Your task to perform on an android device: Empty the shopping cart on newegg.com. Image 0: 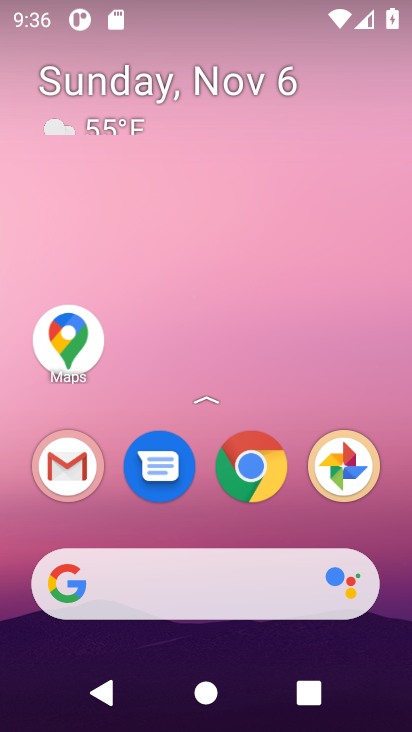
Step 0: click (263, 449)
Your task to perform on an android device: Empty the shopping cart on newegg.com. Image 1: 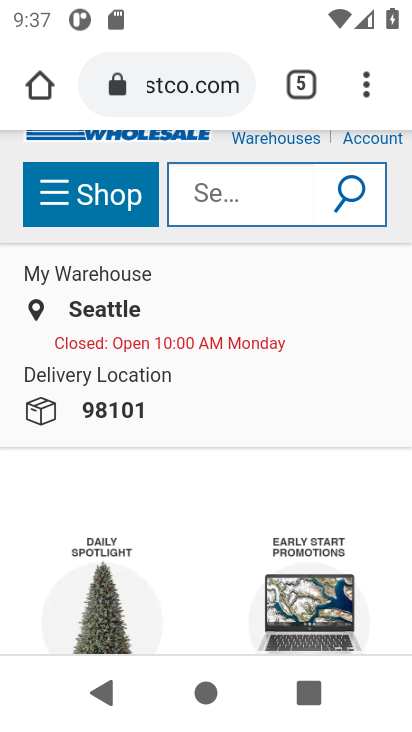
Step 1: click (294, 87)
Your task to perform on an android device: Empty the shopping cart on newegg.com. Image 2: 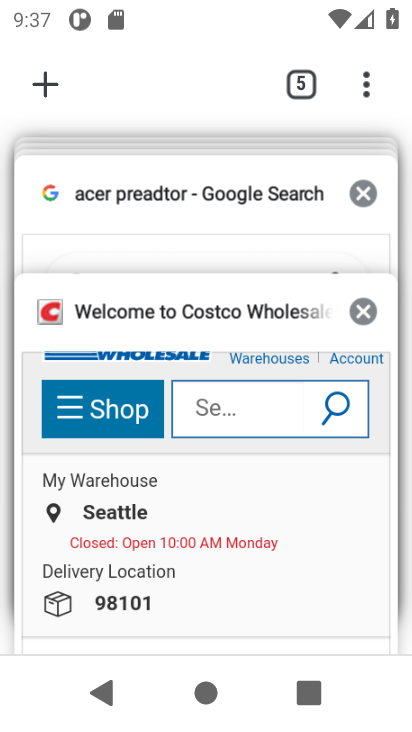
Step 2: click (51, 77)
Your task to perform on an android device: Empty the shopping cart on newegg.com. Image 3: 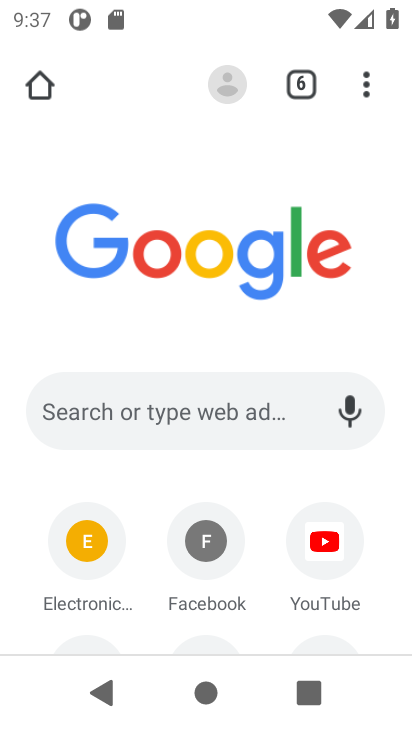
Step 3: click (158, 396)
Your task to perform on an android device: Empty the shopping cart on newegg.com. Image 4: 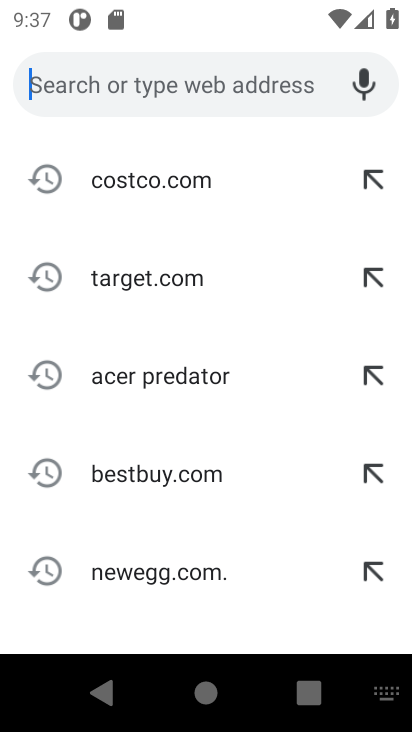
Step 4: click (222, 566)
Your task to perform on an android device: Empty the shopping cart on newegg.com. Image 5: 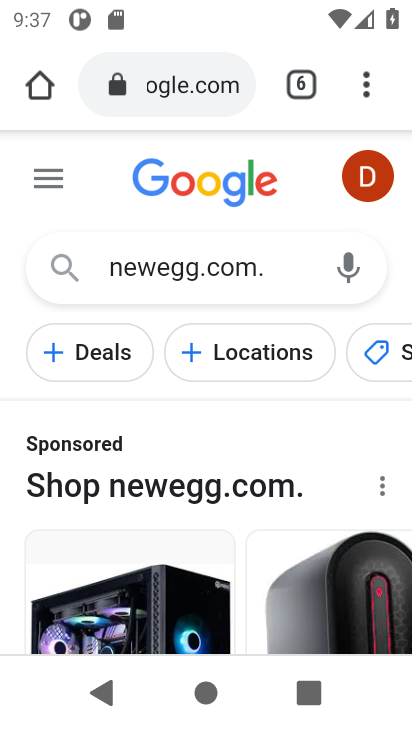
Step 5: drag from (270, 515) to (282, 189)
Your task to perform on an android device: Empty the shopping cart on newegg.com. Image 6: 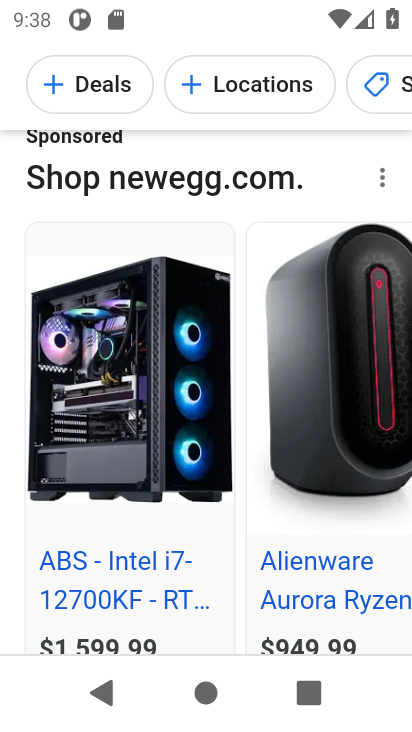
Step 6: drag from (243, 324) to (226, 664)
Your task to perform on an android device: Empty the shopping cart on newegg.com. Image 7: 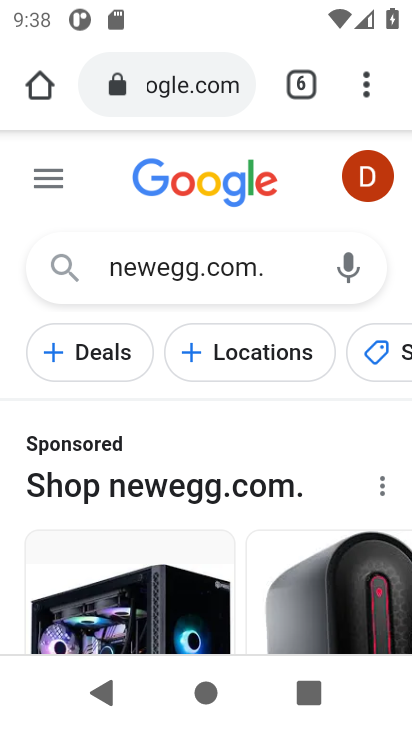
Step 7: drag from (169, 628) to (248, 132)
Your task to perform on an android device: Empty the shopping cart on newegg.com. Image 8: 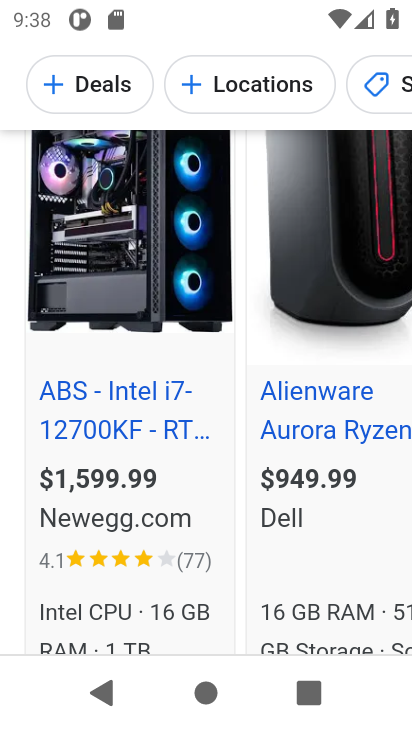
Step 8: drag from (184, 460) to (225, 198)
Your task to perform on an android device: Empty the shopping cart on newegg.com. Image 9: 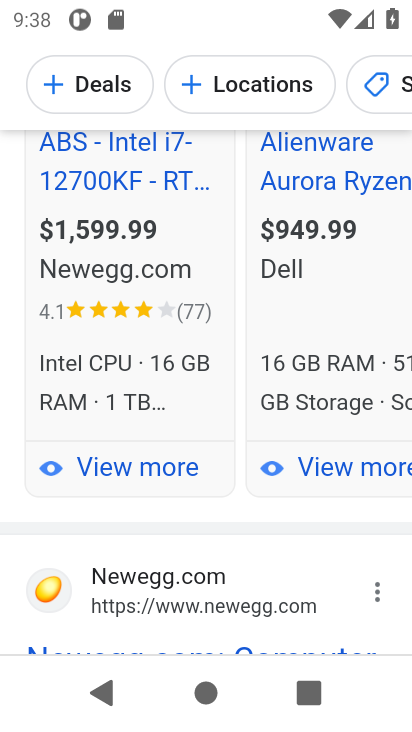
Step 9: drag from (195, 600) to (237, 327)
Your task to perform on an android device: Empty the shopping cart on newegg.com. Image 10: 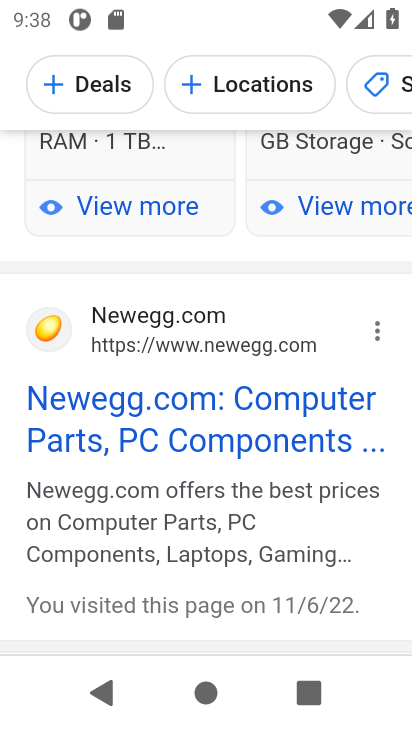
Step 10: click (169, 418)
Your task to perform on an android device: Empty the shopping cart on newegg.com. Image 11: 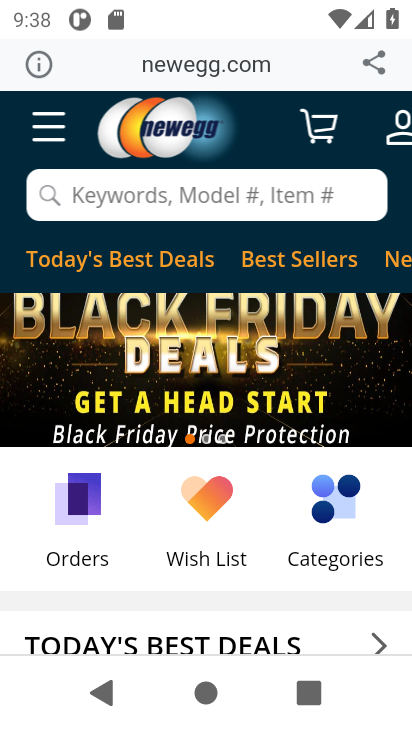
Step 11: click (325, 120)
Your task to perform on an android device: Empty the shopping cart on newegg.com. Image 12: 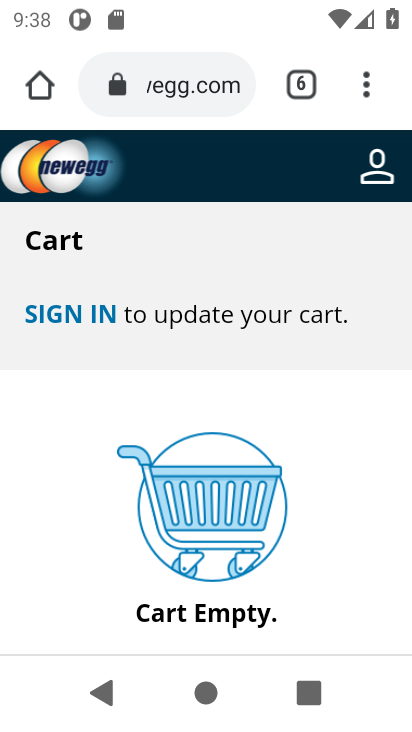
Step 12: task complete